Your task to perform on an android device: turn notification dots on Image 0: 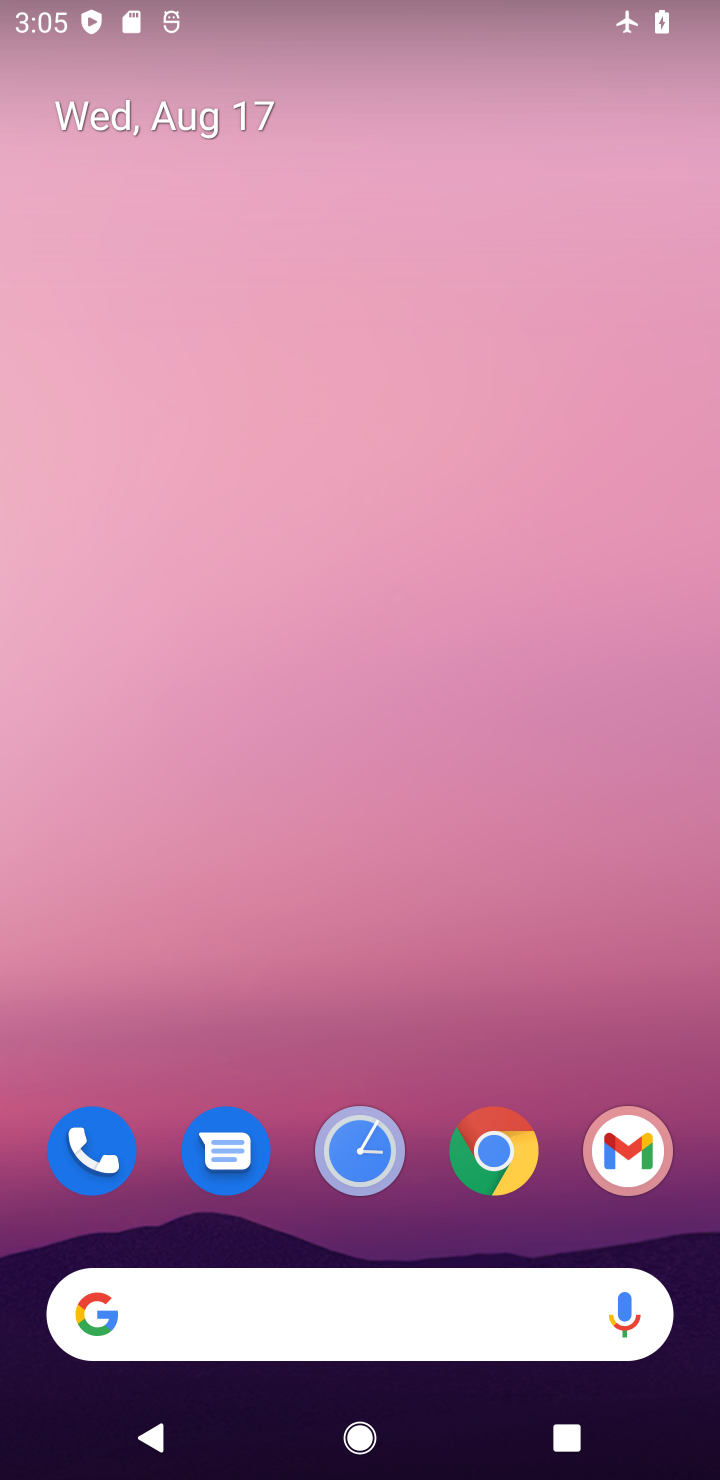
Step 0: drag from (358, 346) to (362, 44)
Your task to perform on an android device: turn notification dots on Image 1: 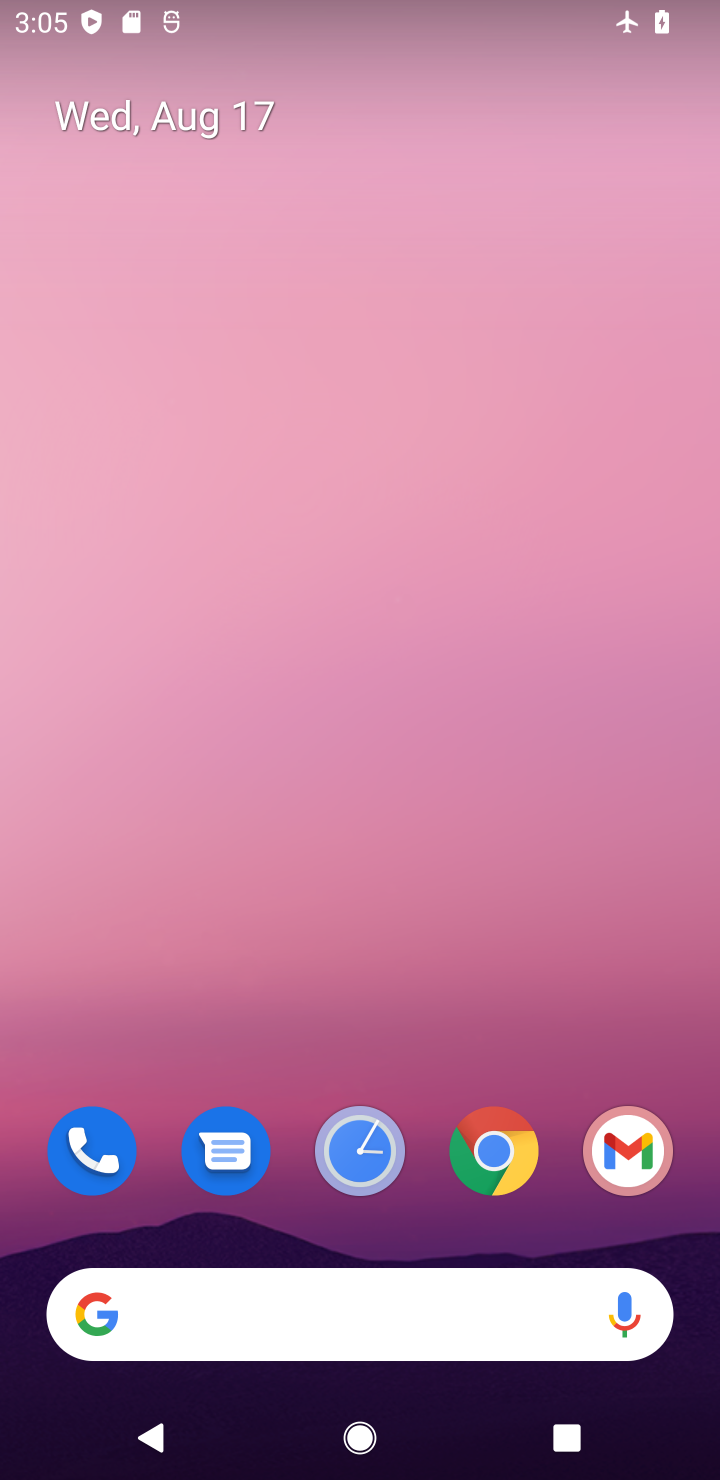
Step 1: drag from (237, 1239) to (251, 290)
Your task to perform on an android device: turn notification dots on Image 2: 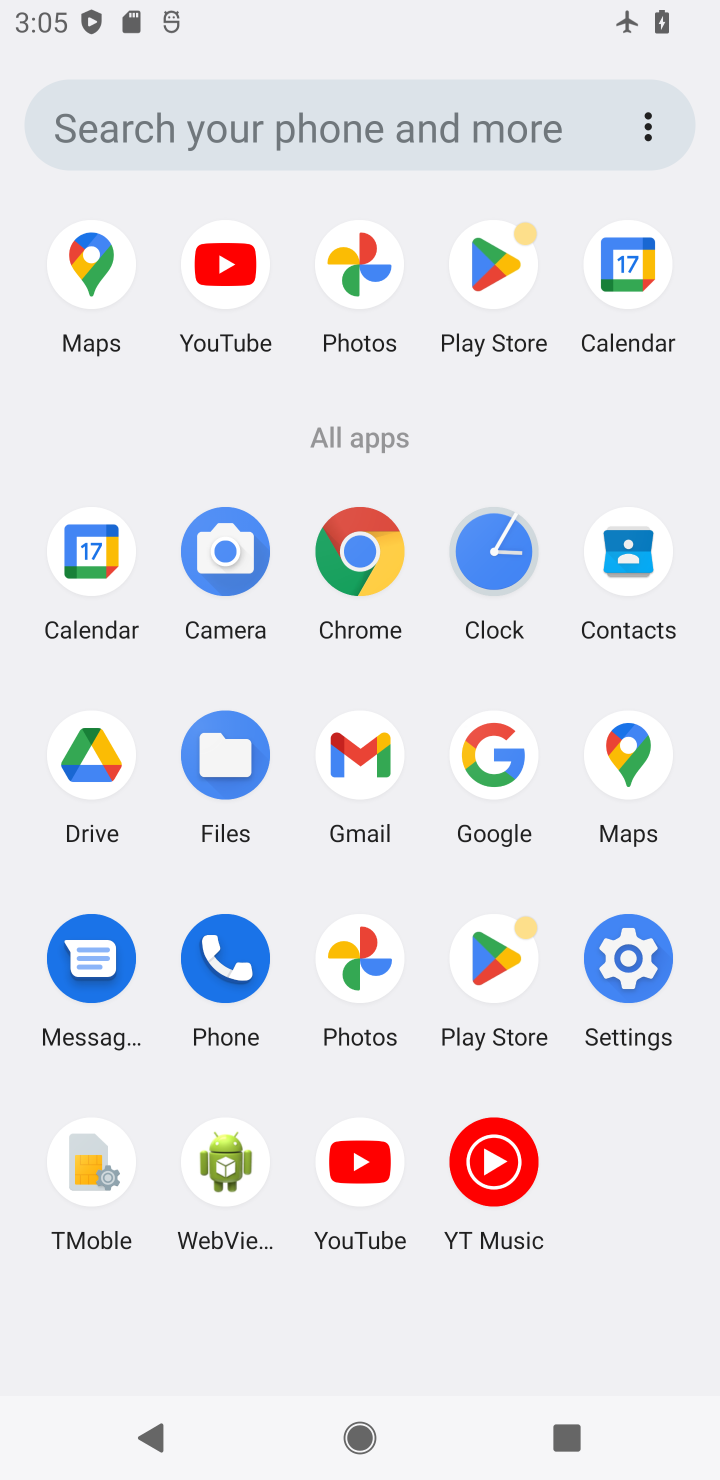
Step 2: click (620, 948)
Your task to perform on an android device: turn notification dots on Image 3: 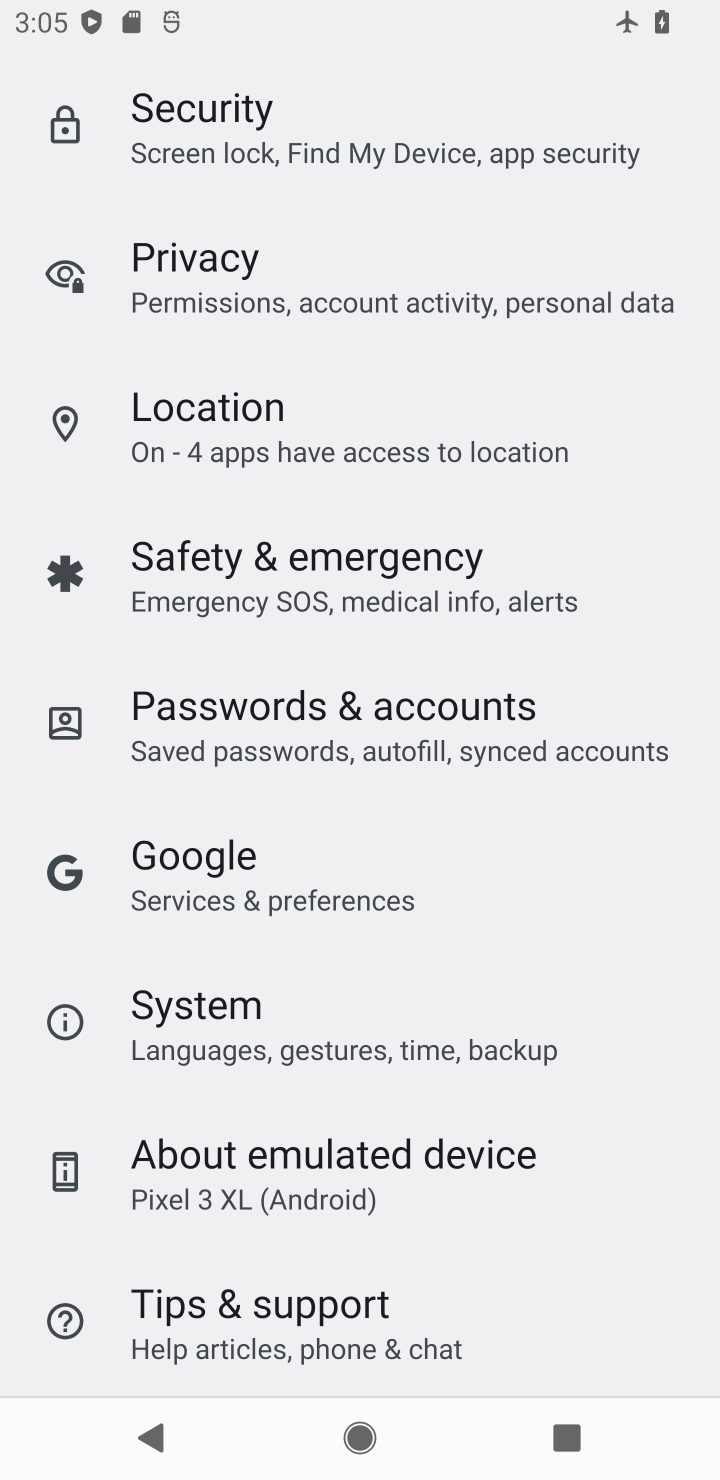
Step 3: drag from (262, 392) to (286, 1097)
Your task to perform on an android device: turn notification dots on Image 4: 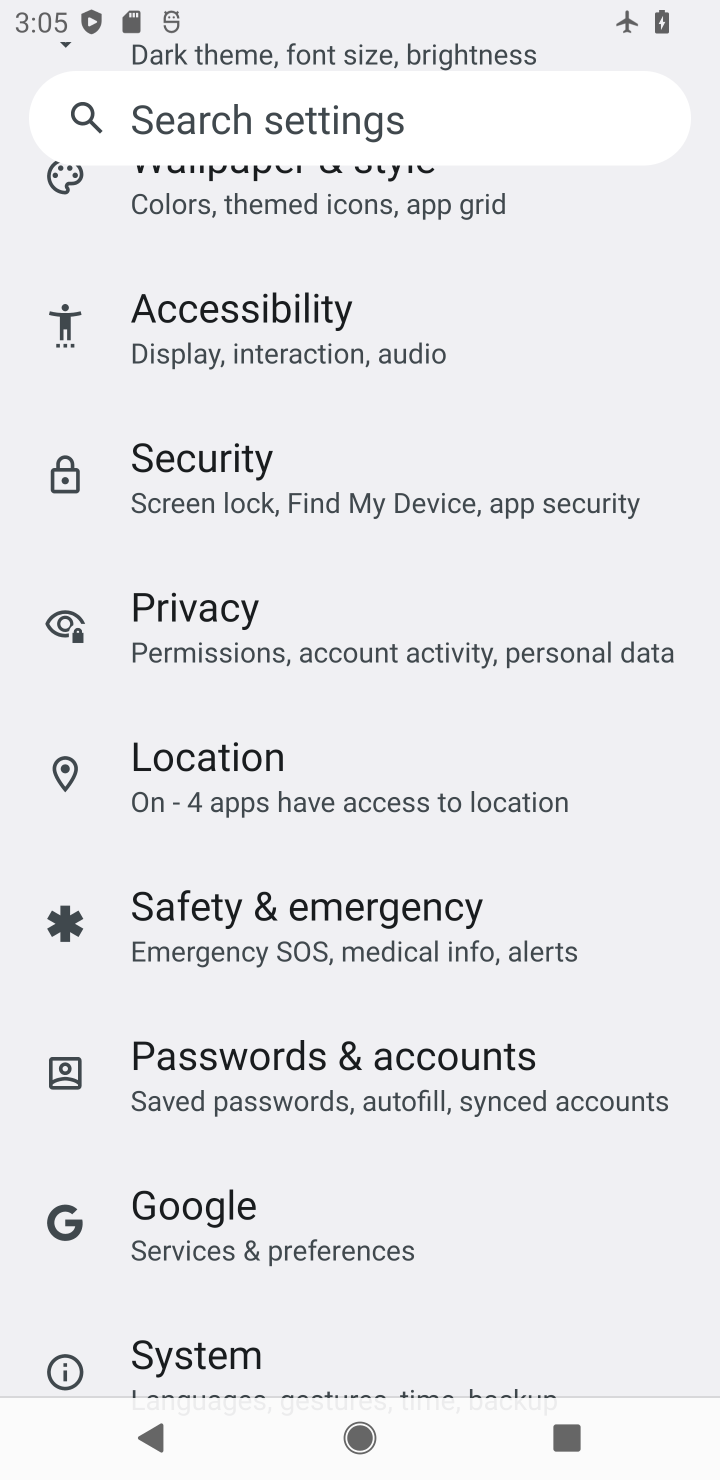
Step 4: drag from (302, 300) to (386, 1182)
Your task to perform on an android device: turn notification dots on Image 5: 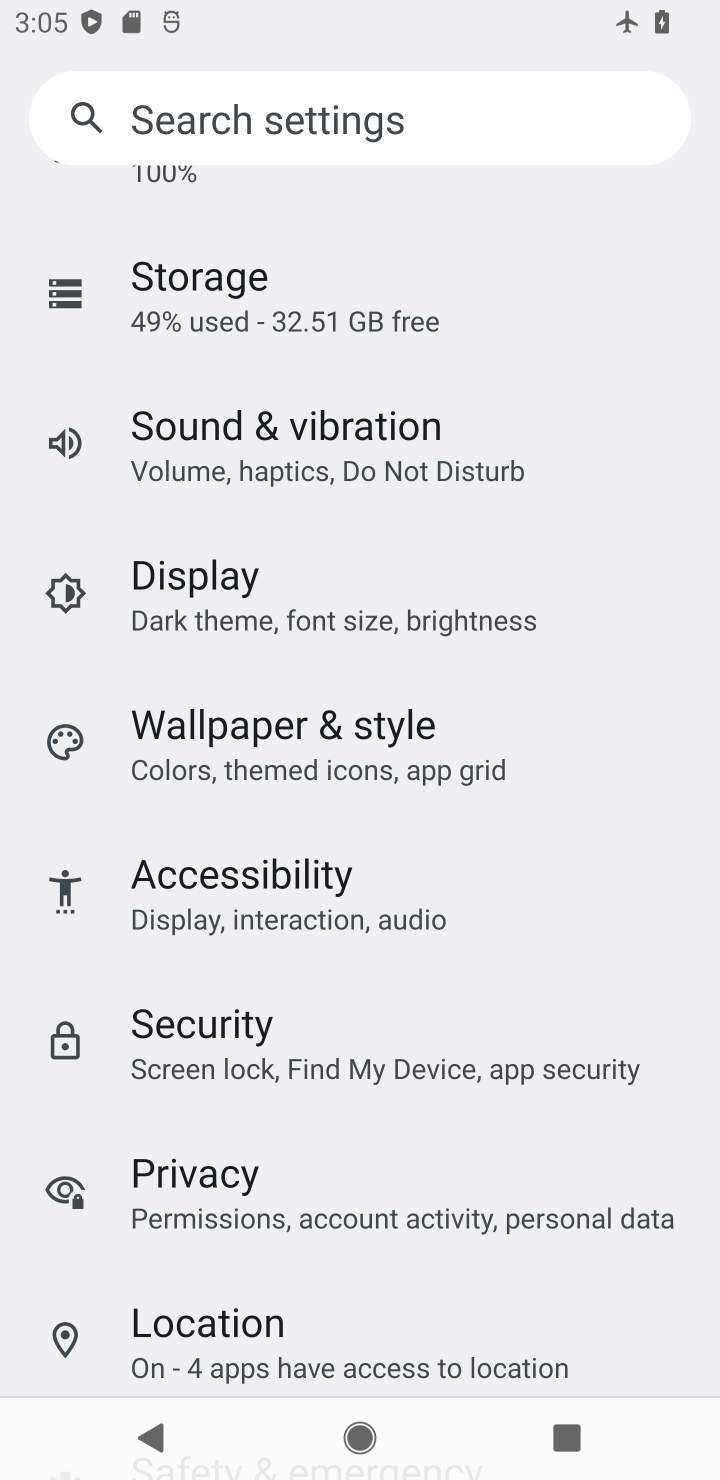
Step 5: drag from (329, 272) to (360, 1323)
Your task to perform on an android device: turn notification dots on Image 6: 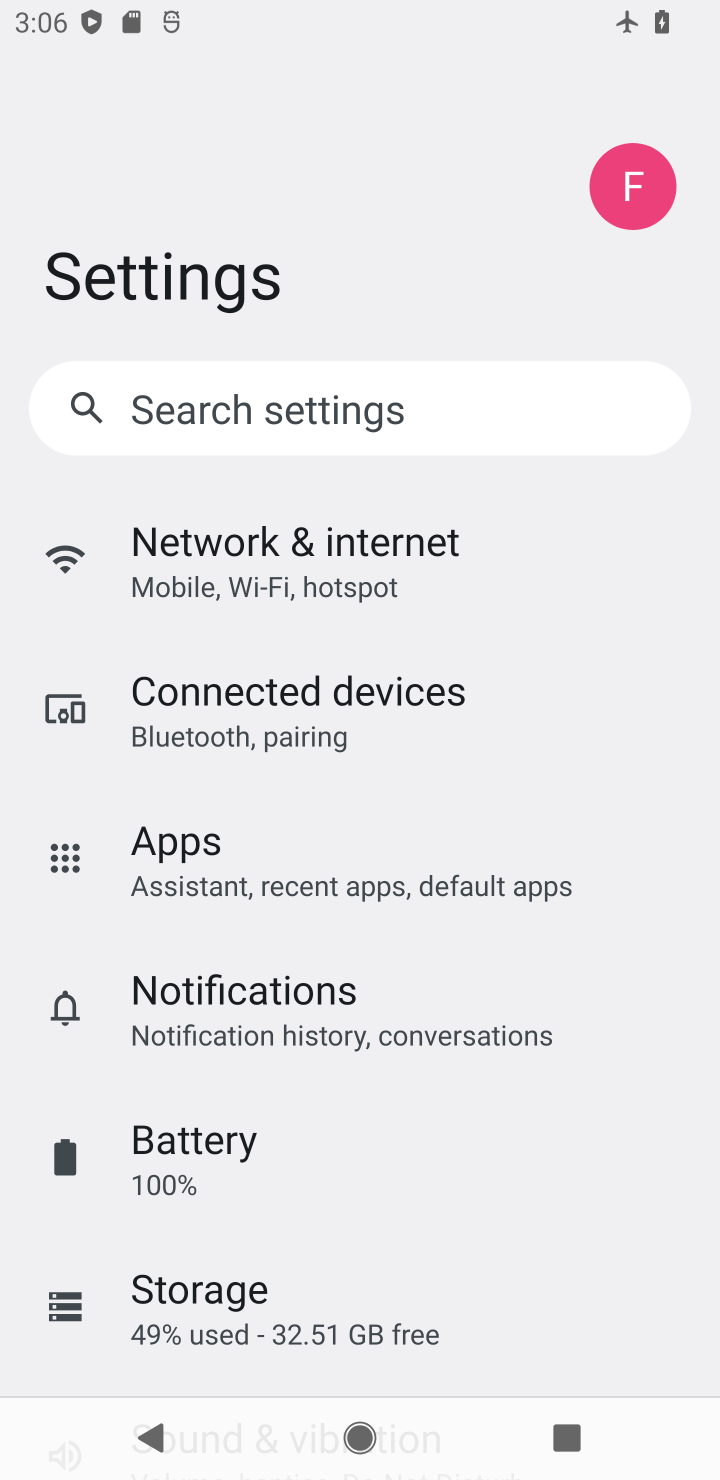
Step 6: click (412, 398)
Your task to perform on an android device: turn notification dots on Image 7: 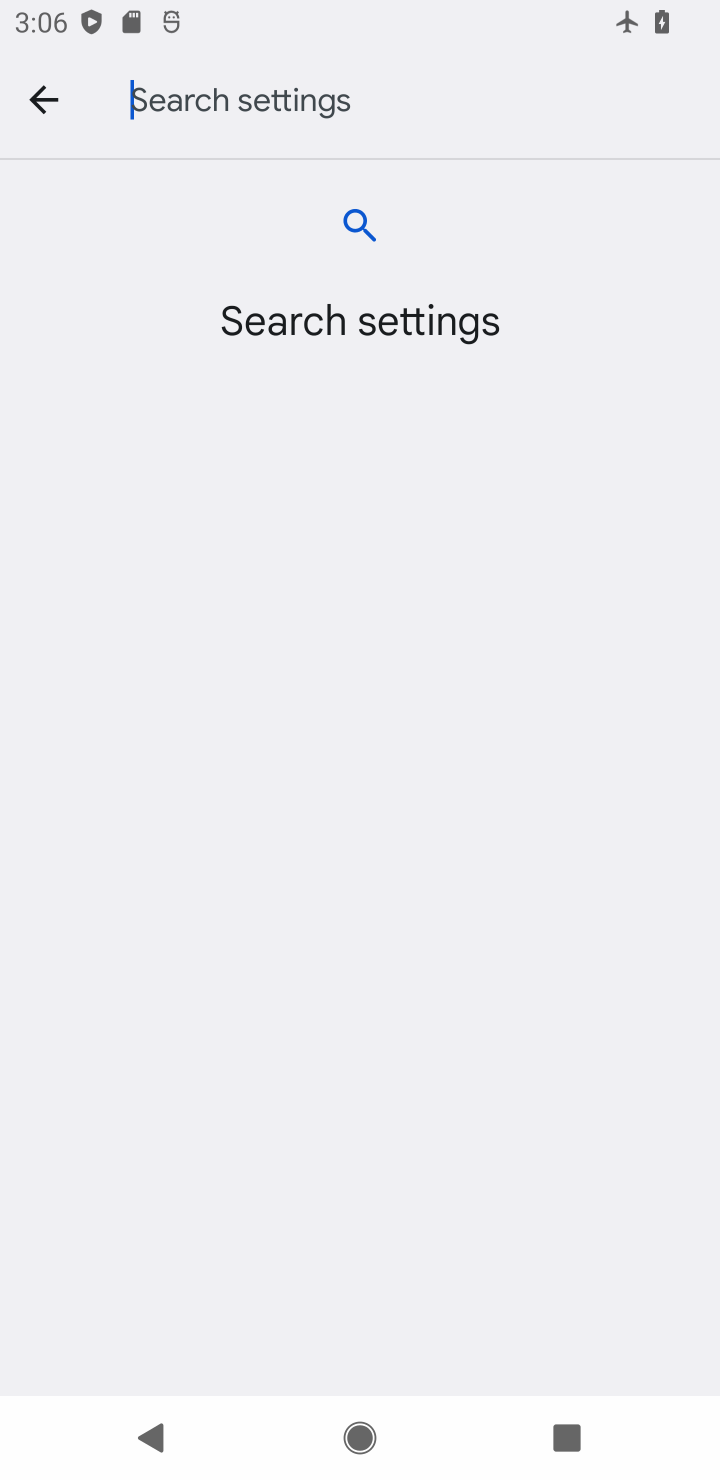
Step 7: type " notification dots  "
Your task to perform on an android device: turn notification dots on Image 8: 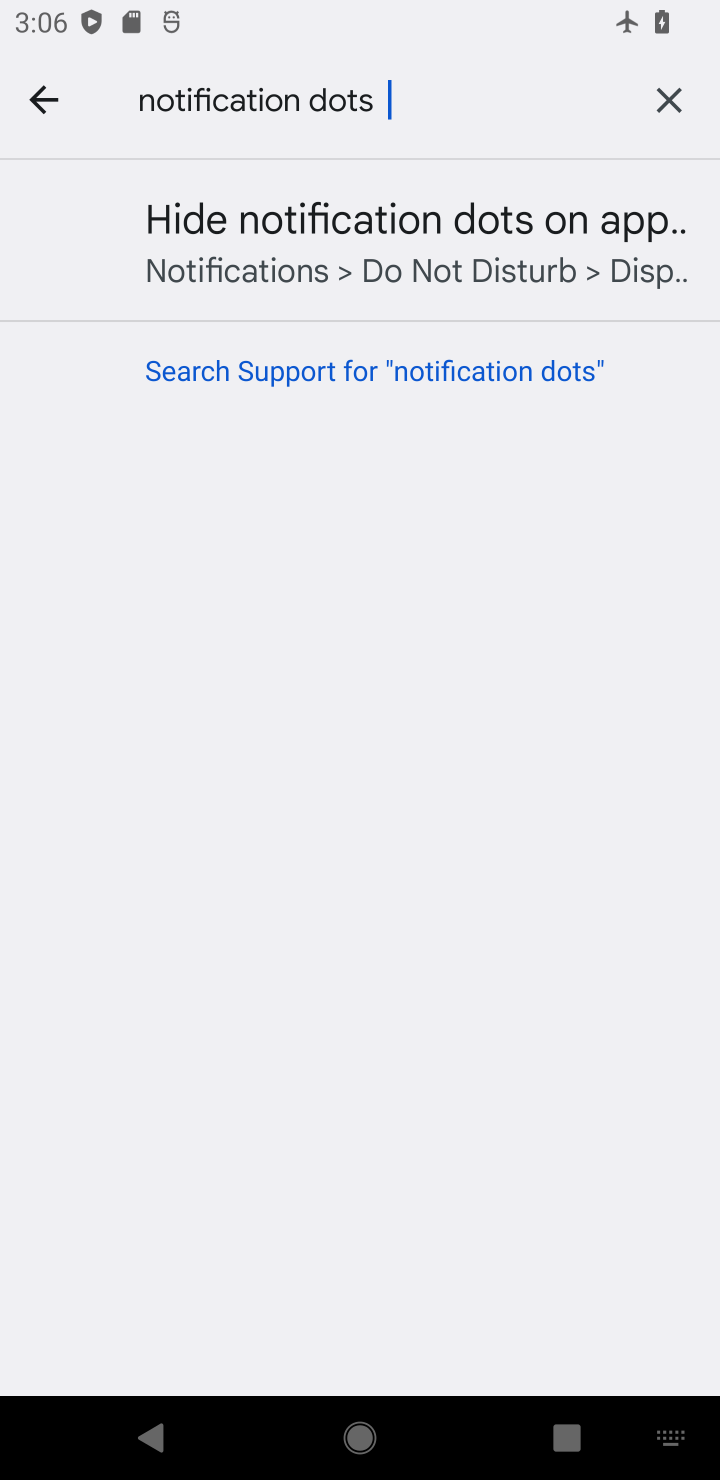
Step 8: click (275, 207)
Your task to perform on an android device: turn notification dots on Image 9: 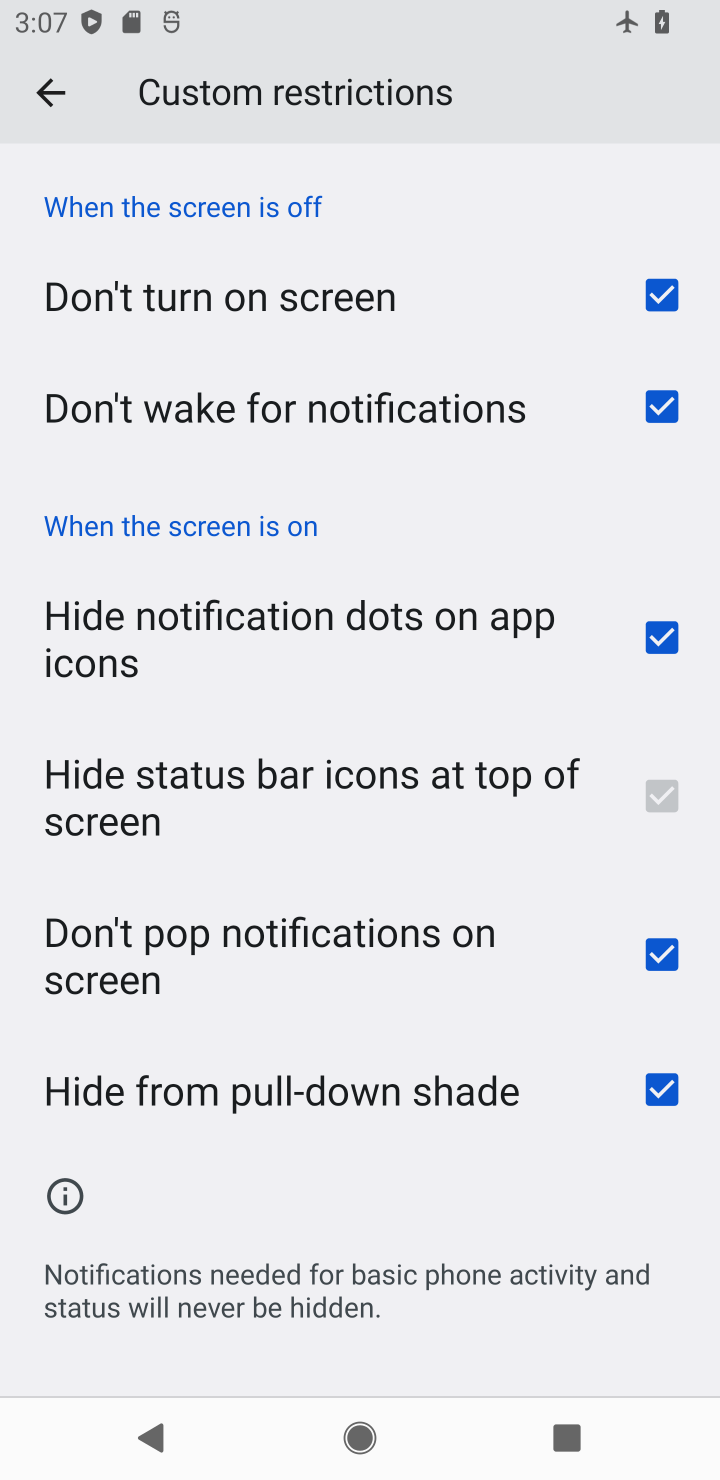
Step 9: task complete